Your task to perform on an android device: turn pop-ups on in chrome Image 0: 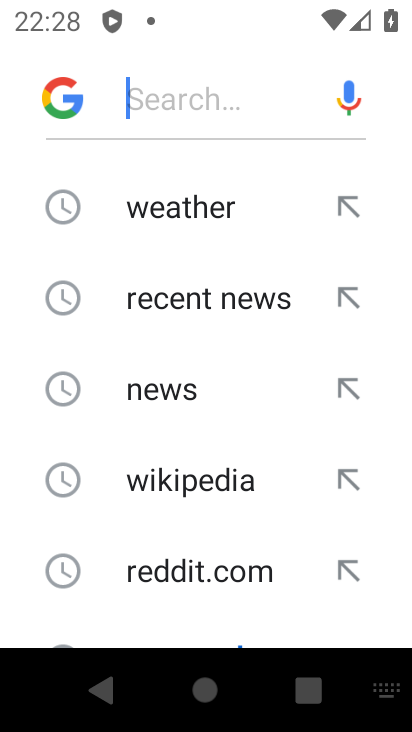
Step 0: drag from (193, 513) to (249, 186)
Your task to perform on an android device: turn pop-ups on in chrome Image 1: 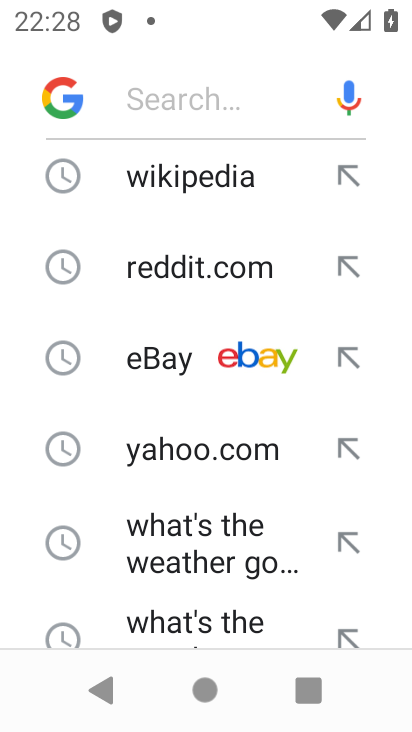
Step 1: press home button
Your task to perform on an android device: turn pop-ups on in chrome Image 2: 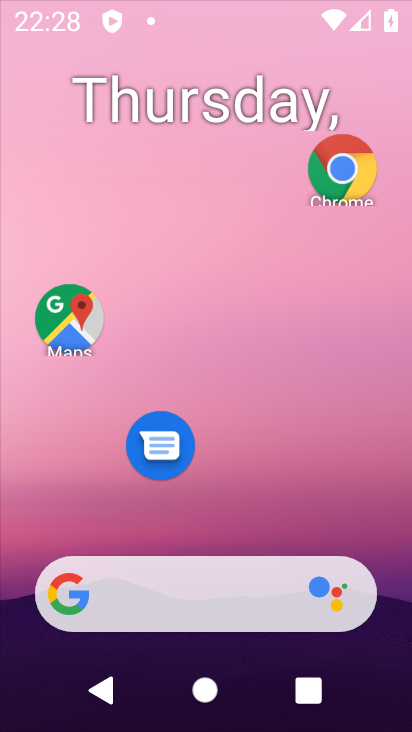
Step 2: drag from (209, 551) to (209, 245)
Your task to perform on an android device: turn pop-ups on in chrome Image 3: 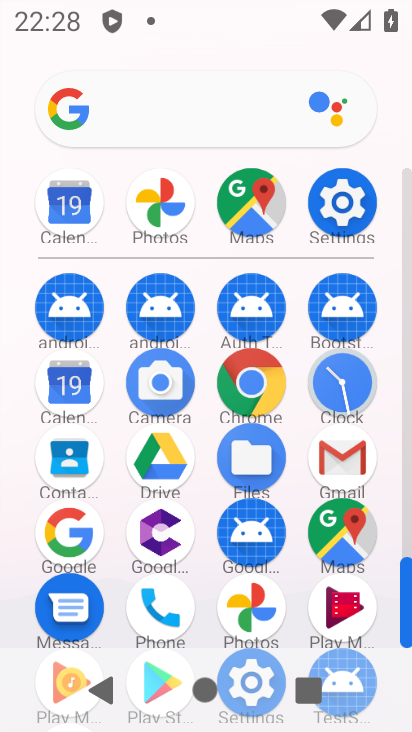
Step 3: click (242, 374)
Your task to perform on an android device: turn pop-ups on in chrome Image 4: 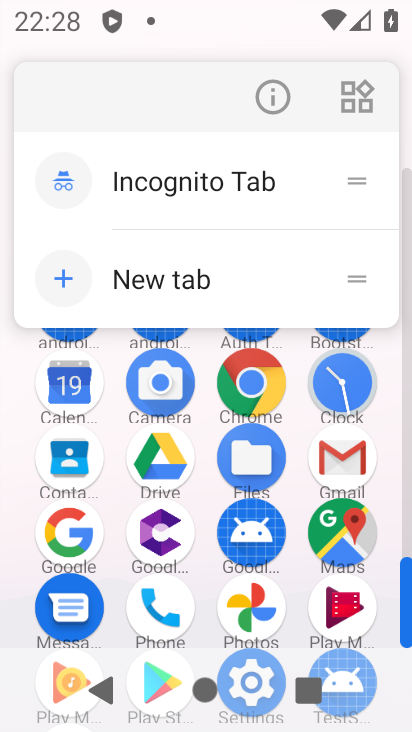
Step 4: click (265, 101)
Your task to perform on an android device: turn pop-ups on in chrome Image 5: 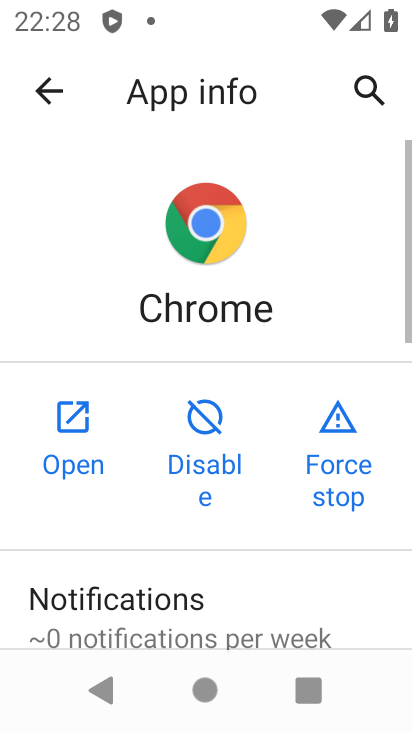
Step 5: click (70, 417)
Your task to perform on an android device: turn pop-ups on in chrome Image 6: 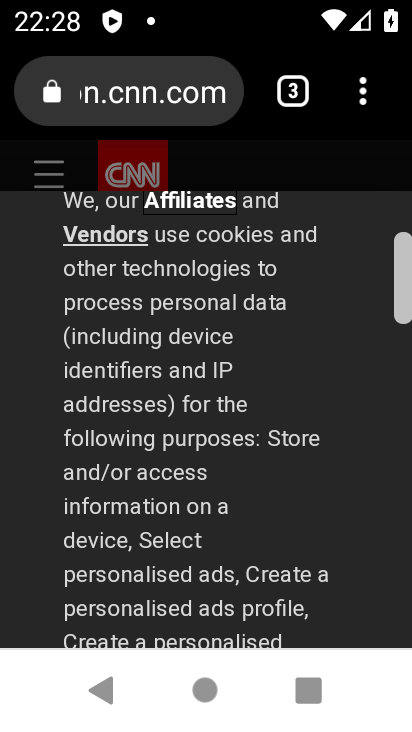
Step 6: click (368, 92)
Your task to perform on an android device: turn pop-ups on in chrome Image 7: 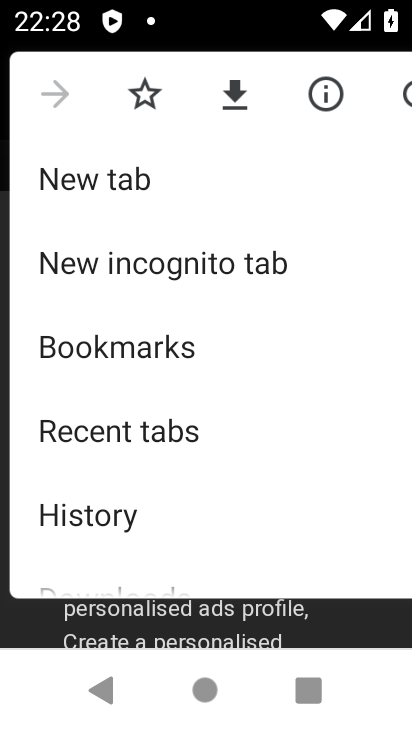
Step 7: drag from (187, 510) to (209, 6)
Your task to perform on an android device: turn pop-ups on in chrome Image 8: 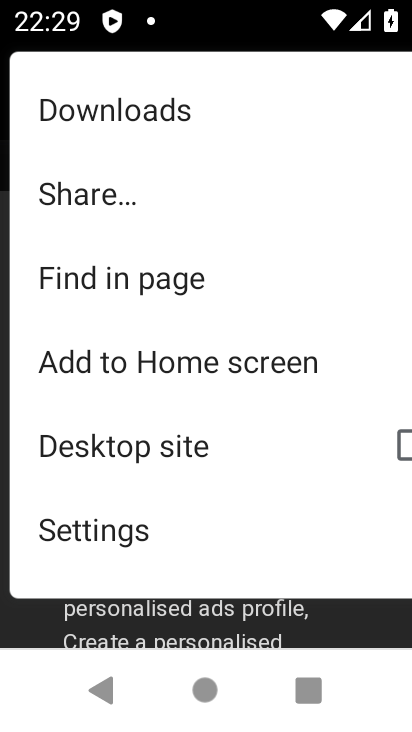
Step 8: click (100, 530)
Your task to perform on an android device: turn pop-ups on in chrome Image 9: 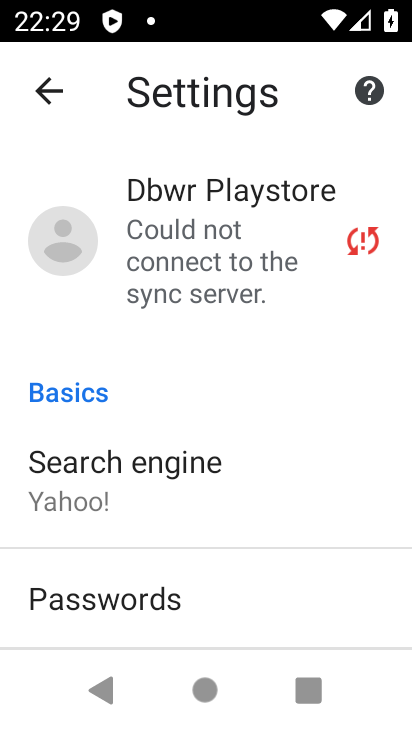
Step 9: drag from (169, 591) to (269, 73)
Your task to perform on an android device: turn pop-ups on in chrome Image 10: 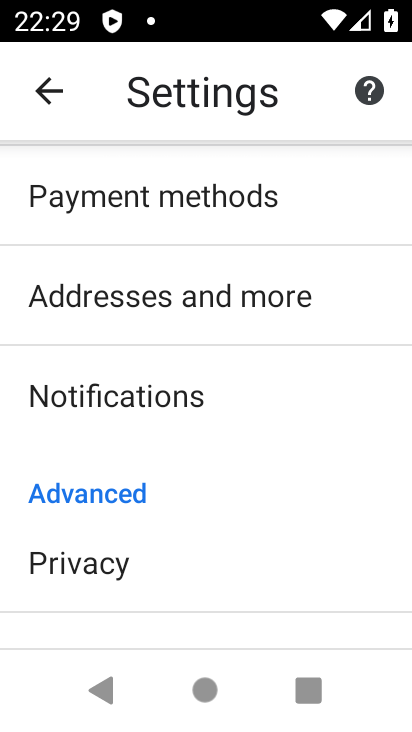
Step 10: drag from (139, 541) to (206, 263)
Your task to perform on an android device: turn pop-ups on in chrome Image 11: 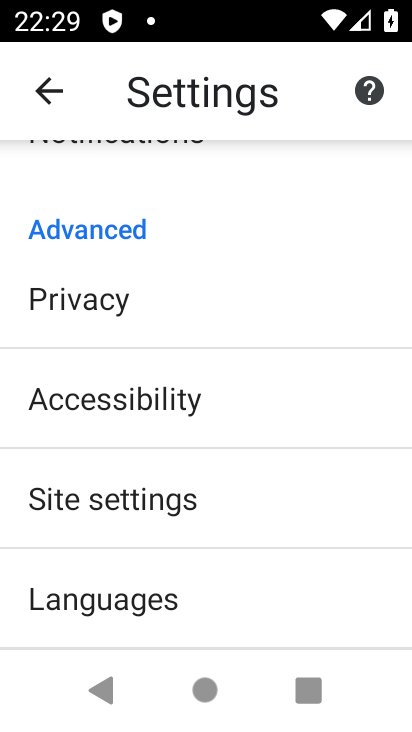
Step 11: click (131, 522)
Your task to perform on an android device: turn pop-ups on in chrome Image 12: 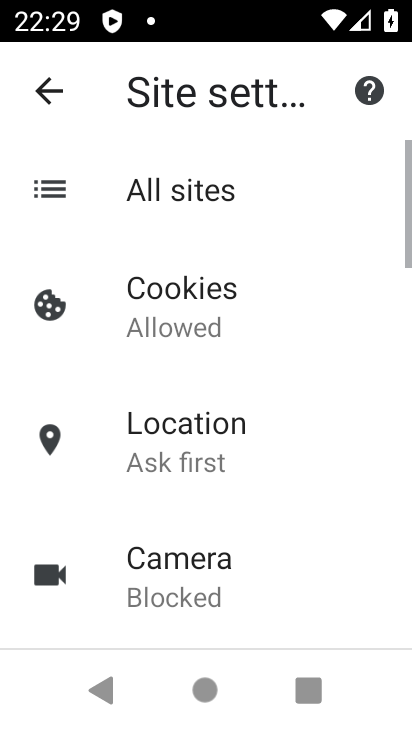
Step 12: drag from (287, 542) to (316, 208)
Your task to perform on an android device: turn pop-ups on in chrome Image 13: 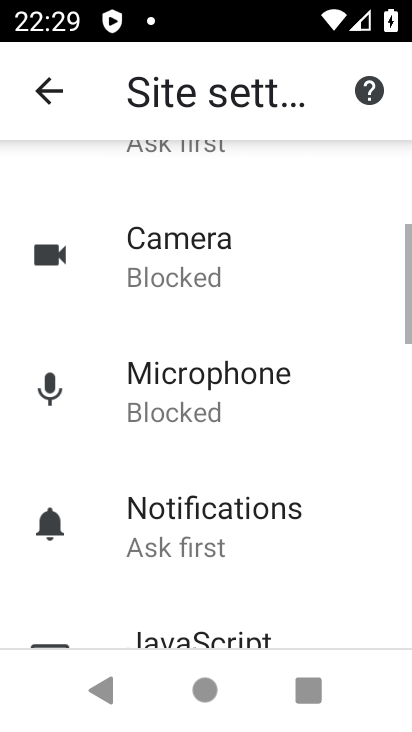
Step 13: drag from (232, 578) to (243, 295)
Your task to perform on an android device: turn pop-ups on in chrome Image 14: 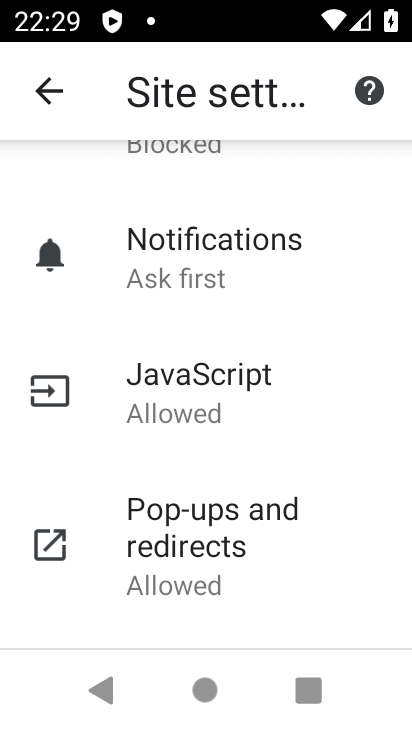
Step 14: click (215, 534)
Your task to perform on an android device: turn pop-ups on in chrome Image 15: 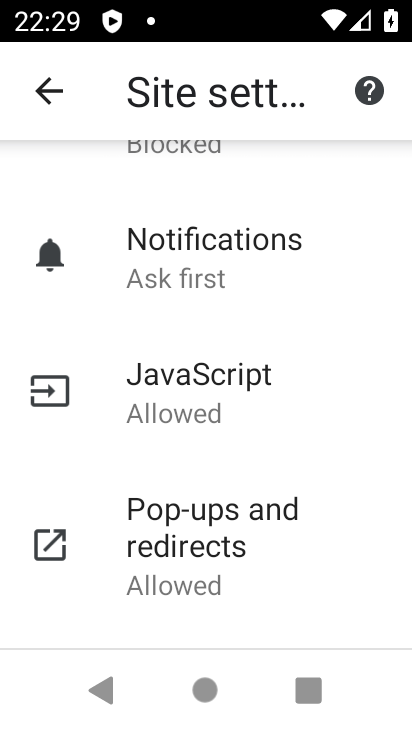
Step 15: click (215, 533)
Your task to perform on an android device: turn pop-ups on in chrome Image 16: 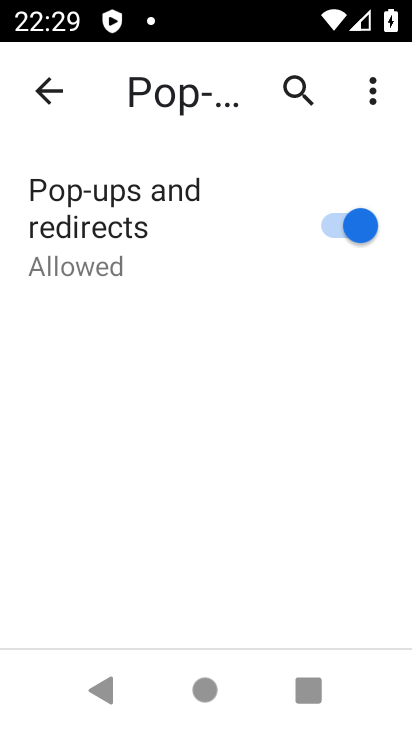
Step 16: task complete